Your task to perform on an android device: stop showing notifications on the lock screen Image 0: 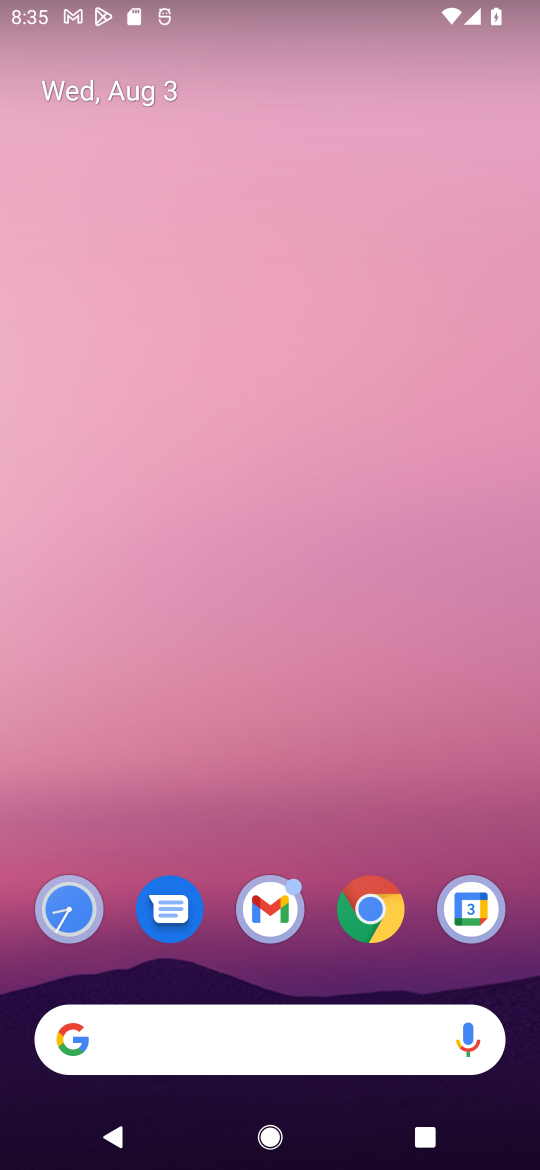
Step 0: press home button
Your task to perform on an android device: stop showing notifications on the lock screen Image 1: 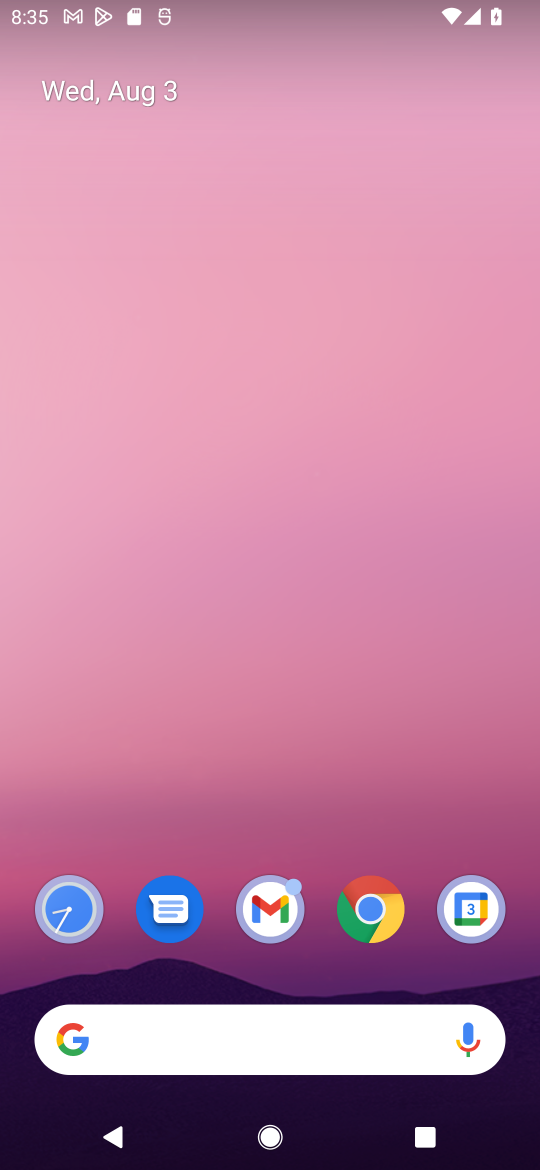
Step 1: drag from (447, 811) to (454, 280)
Your task to perform on an android device: stop showing notifications on the lock screen Image 2: 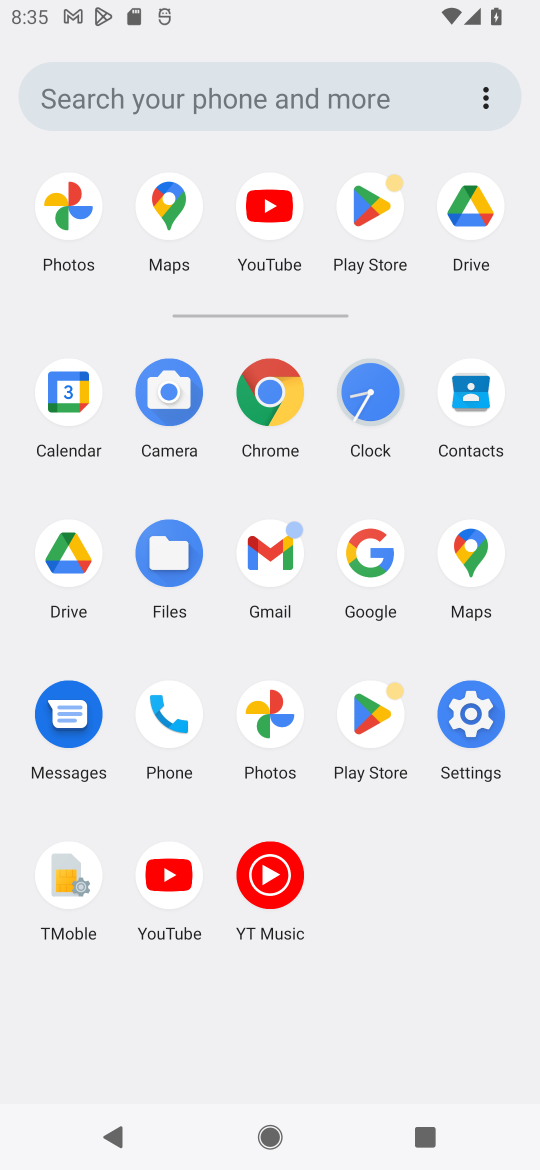
Step 2: click (471, 724)
Your task to perform on an android device: stop showing notifications on the lock screen Image 3: 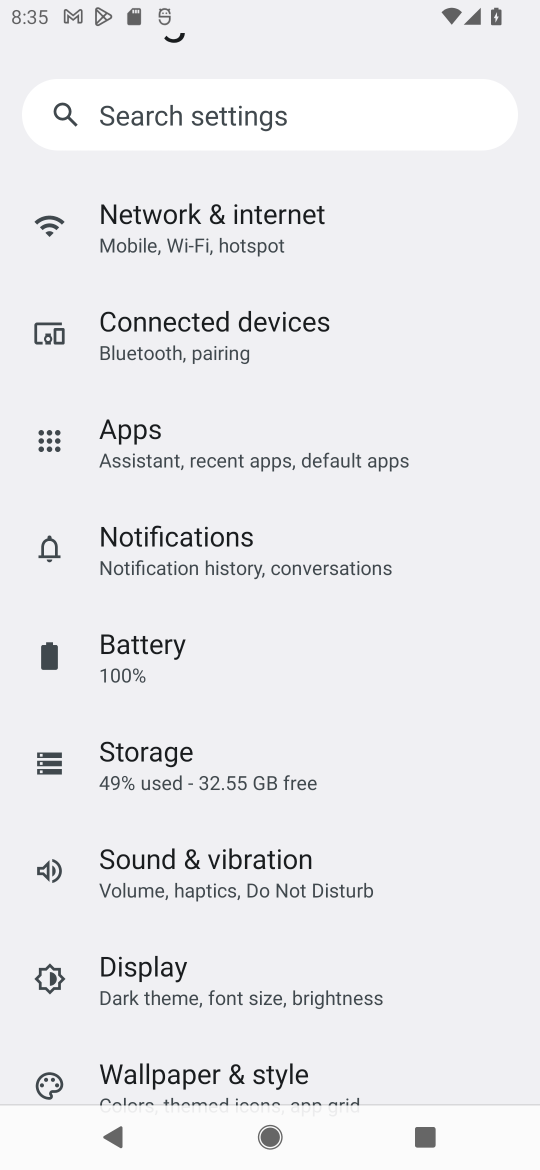
Step 3: drag from (430, 949) to (448, 775)
Your task to perform on an android device: stop showing notifications on the lock screen Image 4: 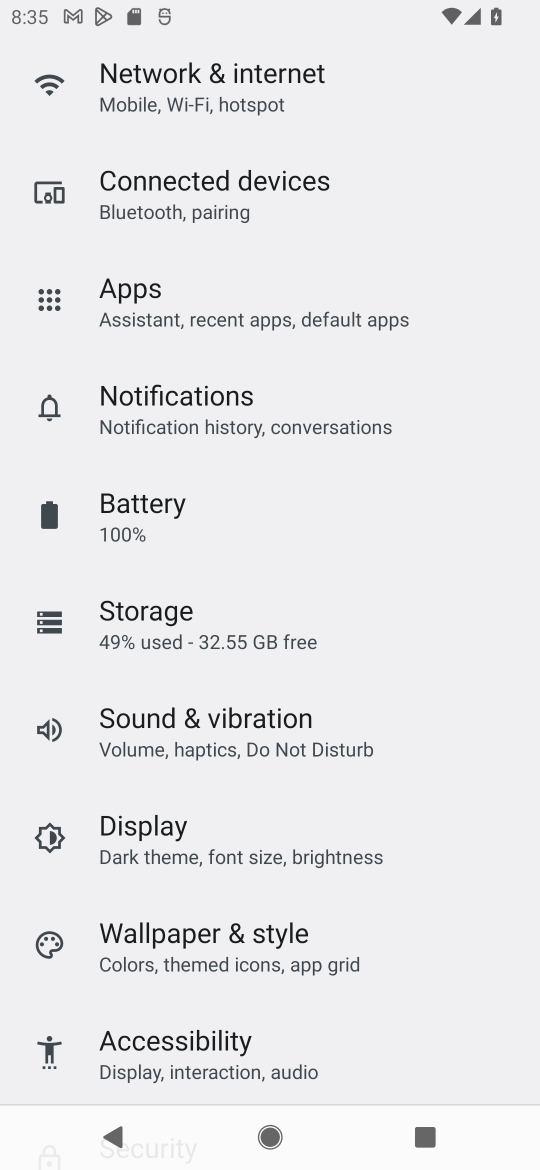
Step 4: drag from (436, 924) to (464, 722)
Your task to perform on an android device: stop showing notifications on the lock screen Image 5: 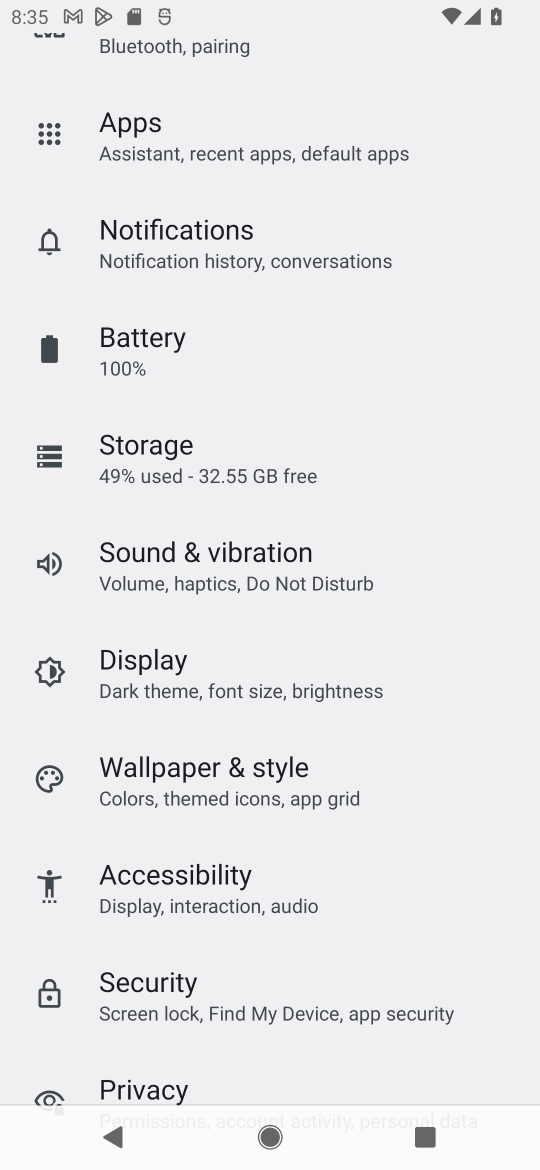
Step 5: drag from (447, 871) to (472, 640)
Your task to perform on an android device: stop showing notifications on the lock screen Image 6: 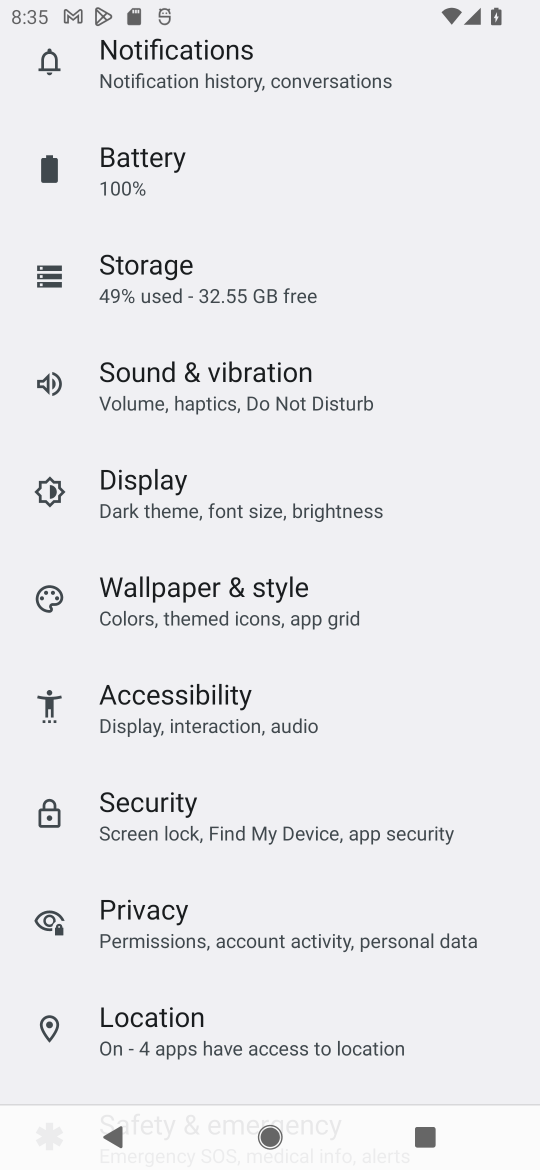
Step 6: drag from (418, 990) to (460, 798)
Your task to perform on an android device: stop showing notifications on the lock screen Image 7: 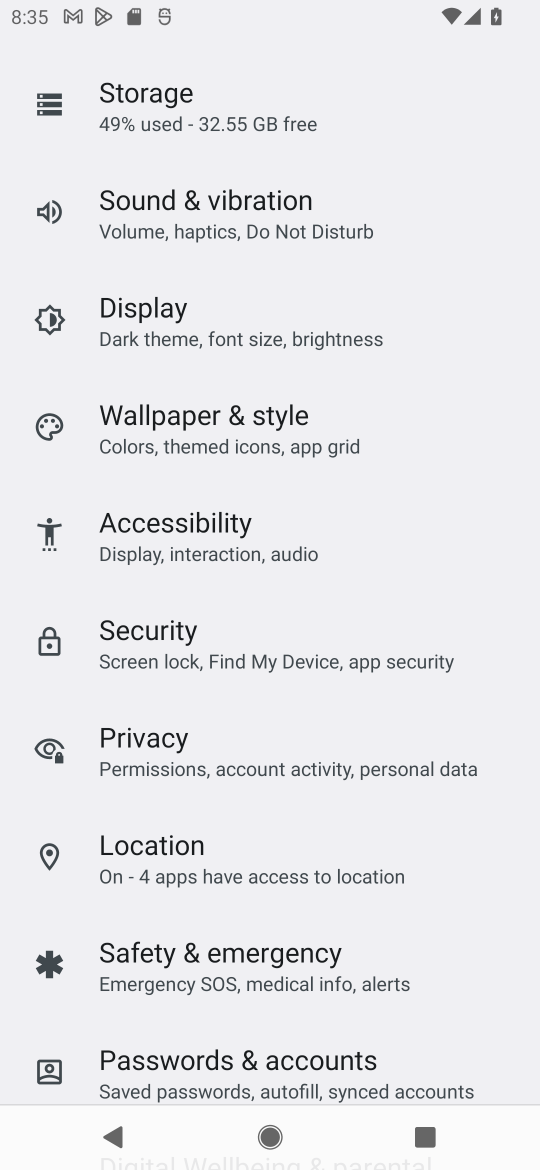
Step 7: drag from (478, 990) to (509, 785)
Your task to perform on an android device: stop showing notifications on the lock screen Image 8: 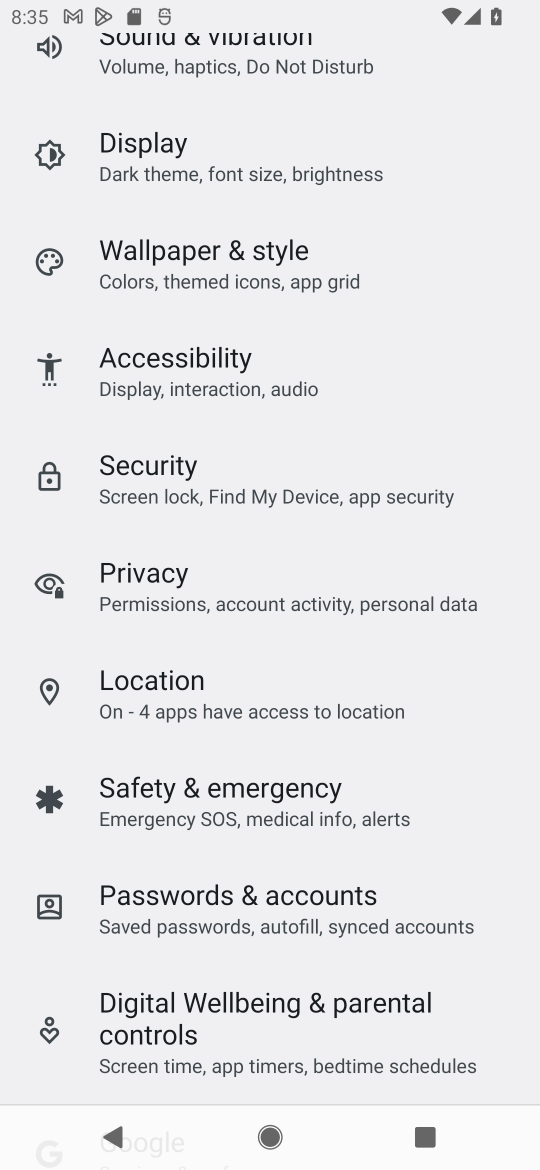
Step 8: drag from (472, 993) to (469, 752)
Your task to perform on an android device: stop showing notifications on the lock screen Image 9: 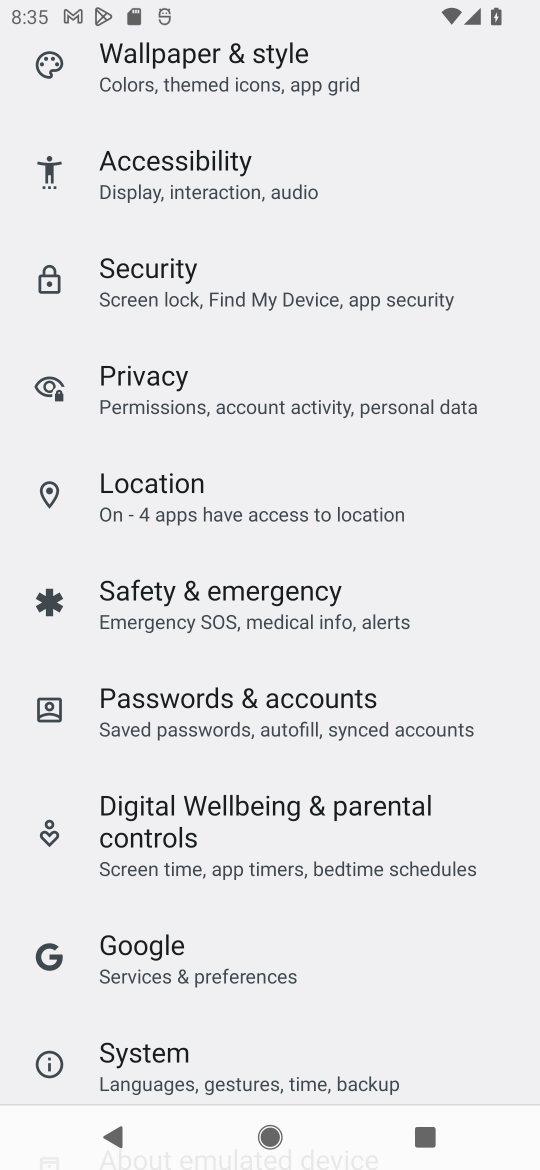
Step 9: drag from (437, 1013) to (468, 667)
Your task to perform on an android device: stop showing notifications on the lock screen Image 10: 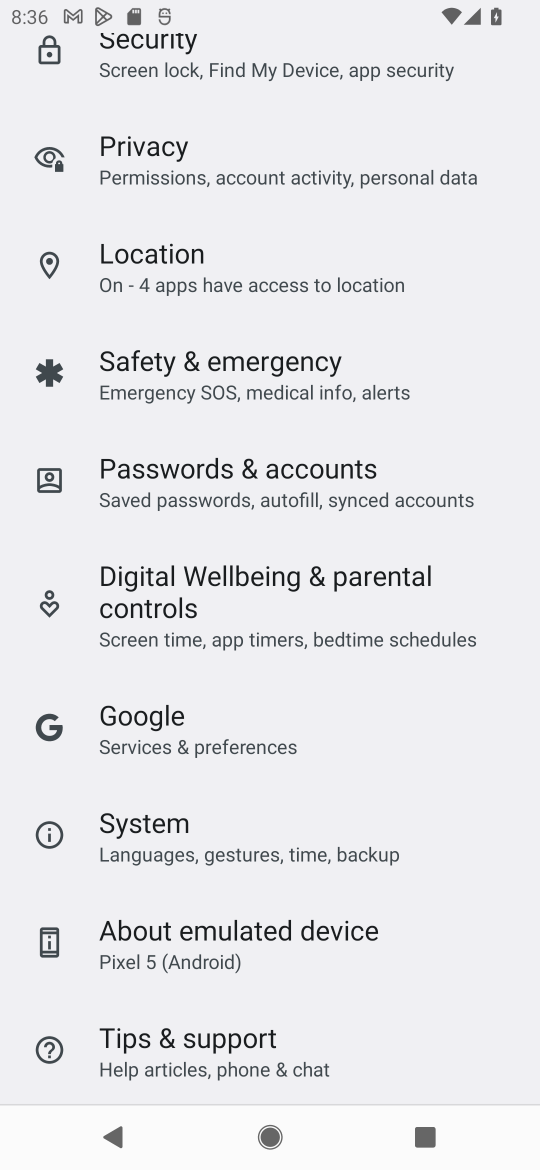
Step 10: drag from (498, 524) to (478, 763)
Your task to perform on an android device: stop showing notifications on the lock screen Image 11: 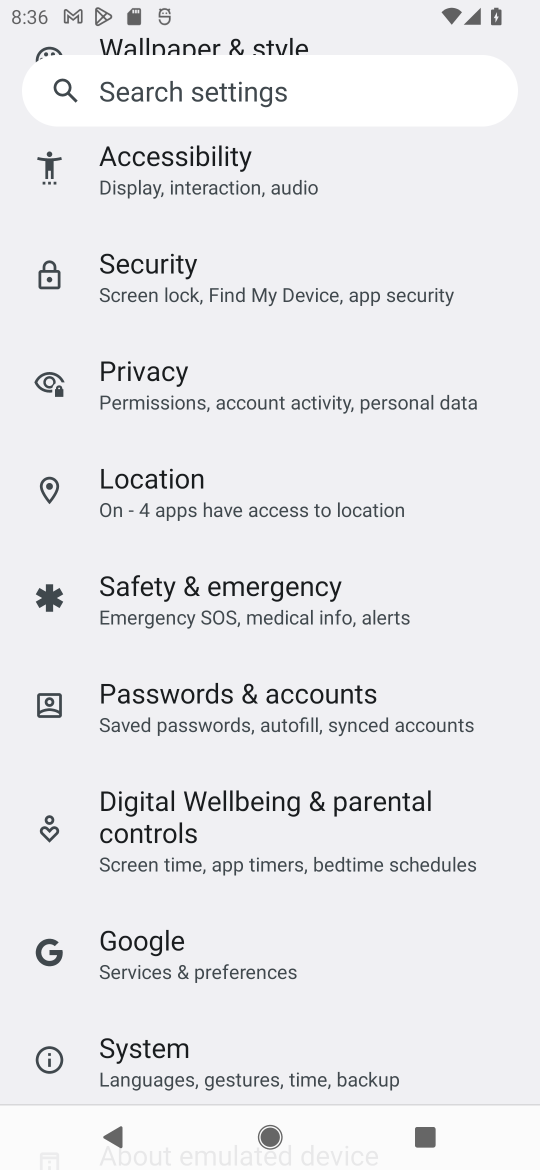
Step 11: drag from (478, 347) to (474, 692)
Your task to perform on an android device: stop showing notifications on the lock screen Image 12: 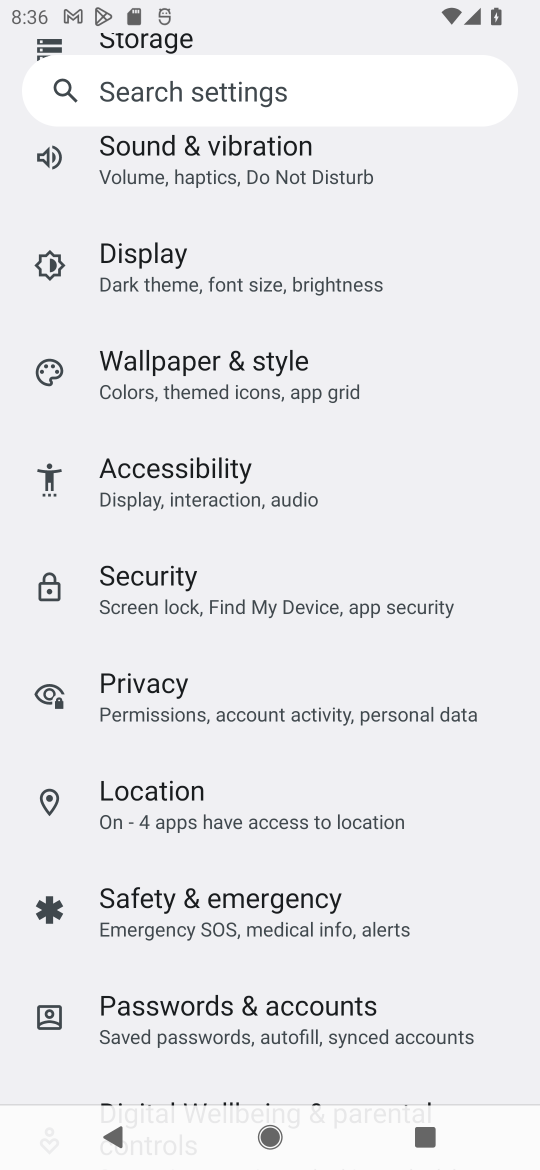
Step 12: drag from (487, 354) to (494, 566)
Your task to perform on an android device: stop showing notifications on the lock screen Image 13: 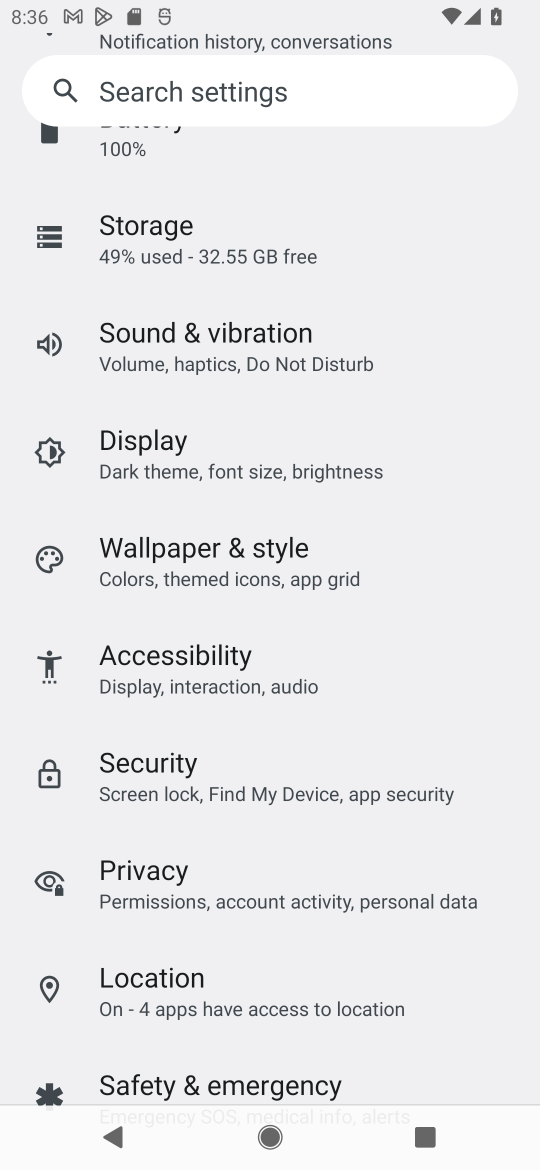
Step 13: drag from (471, 301) to (454, 591)
Your task to perform on an android device: stop showing notifications on the lock screen Image 14: 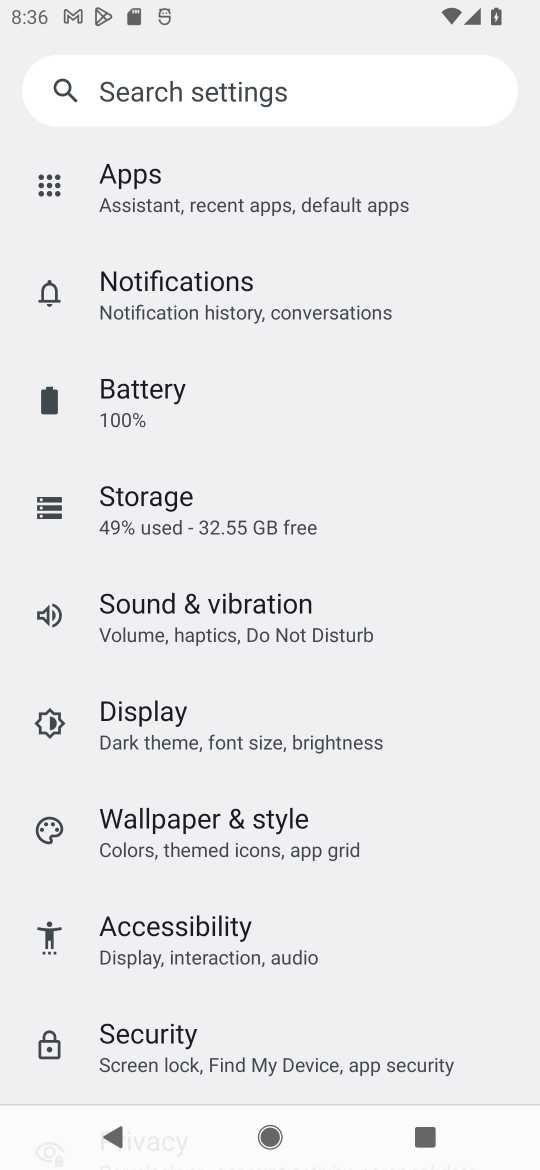
Step 14: drag from (458, 232) to (442, 556)
Your task to perform on an android device: stop showing notifications on the lock screen Image 15: 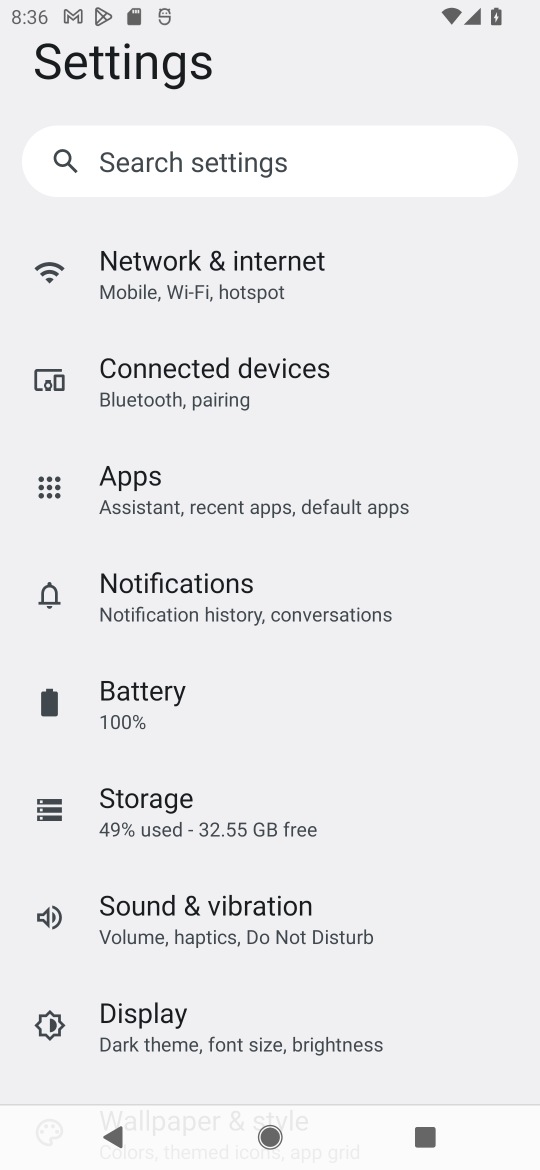
Step 15: click (370, 620)
Your task to perform on an android device: stop showing notifications on the lock screen Image 16: 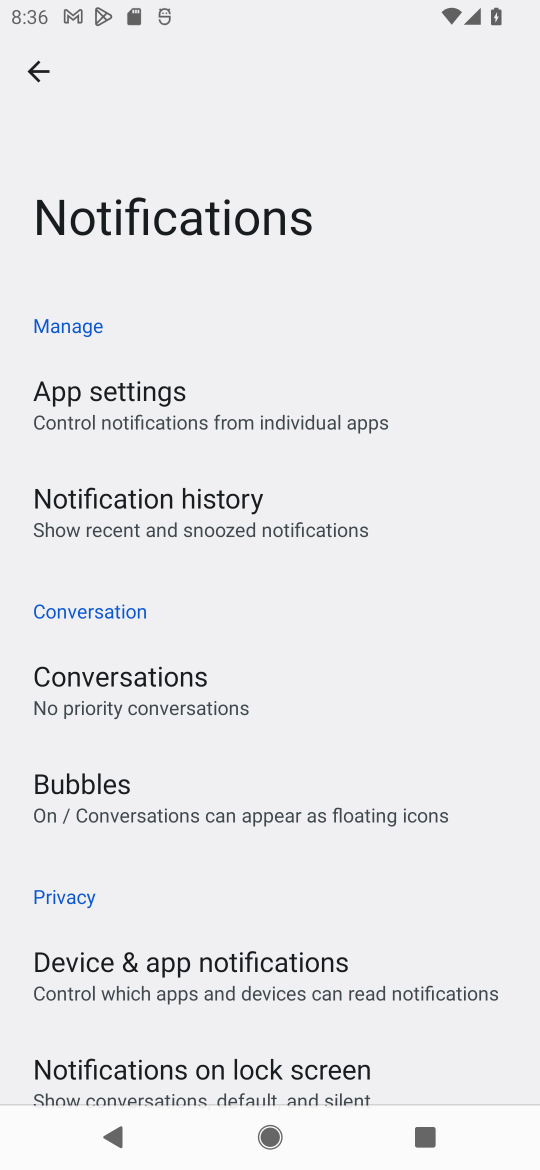
Step 16: drag from (401, 772) to (427, 637)
Your task to perform on an android device: stop showing notifications on the lock screen Image 17: 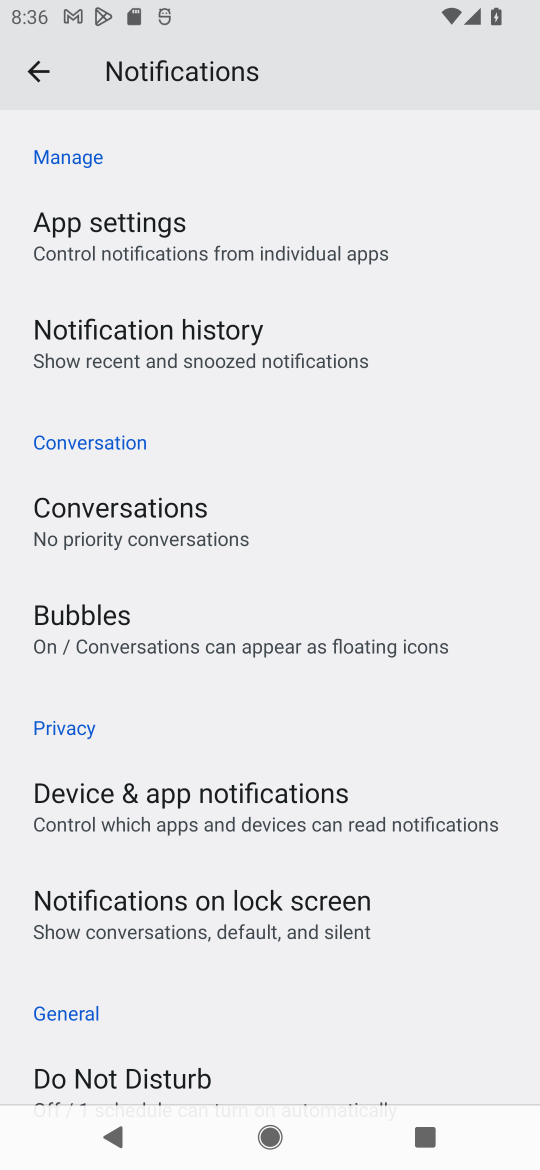
Step 17: drag from (435, 900) to (461, 724)
Your task to perform on an android device: stop showing notifications on the lock screen Image 18: 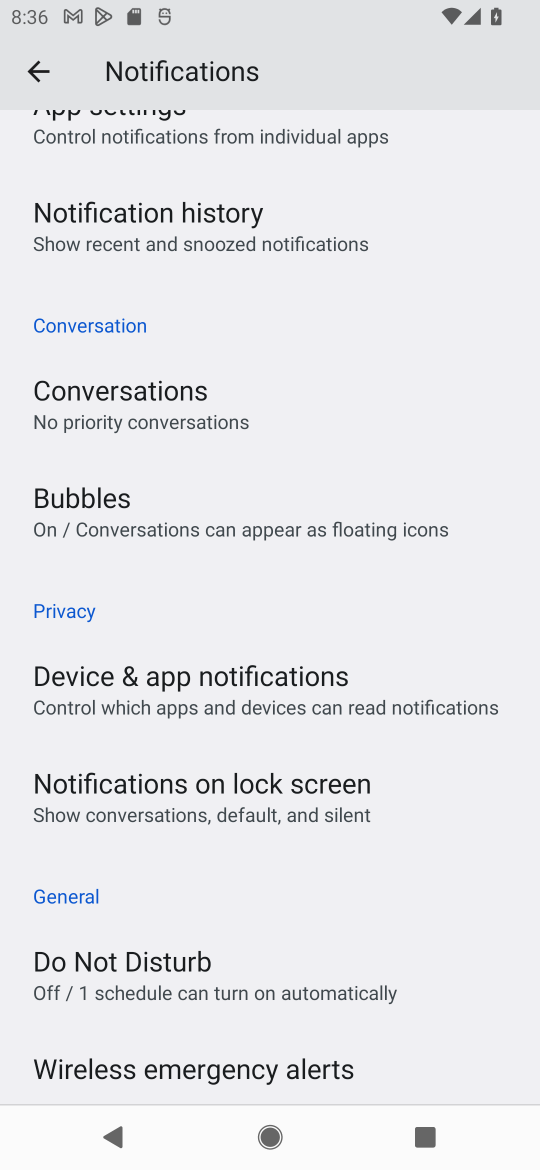
Step 18: click (410, 807)
Your task to perform on an android device: stop showing notifications on the lock screen Image 19: 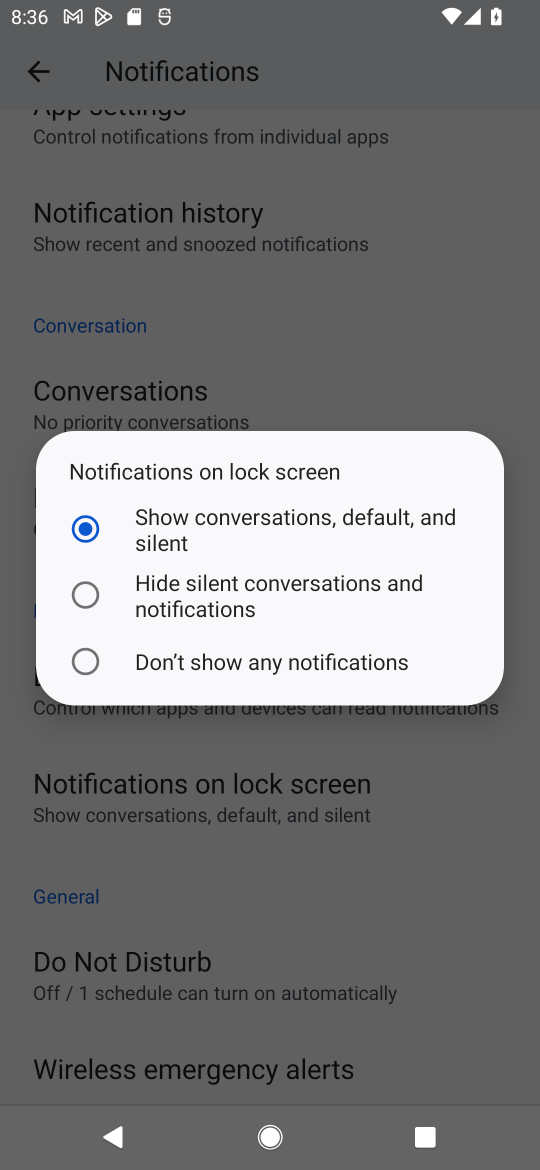
Step 19: click (399, 667)
Your task to perform on an android device: stop showing notifications on the lock screen Image 20: 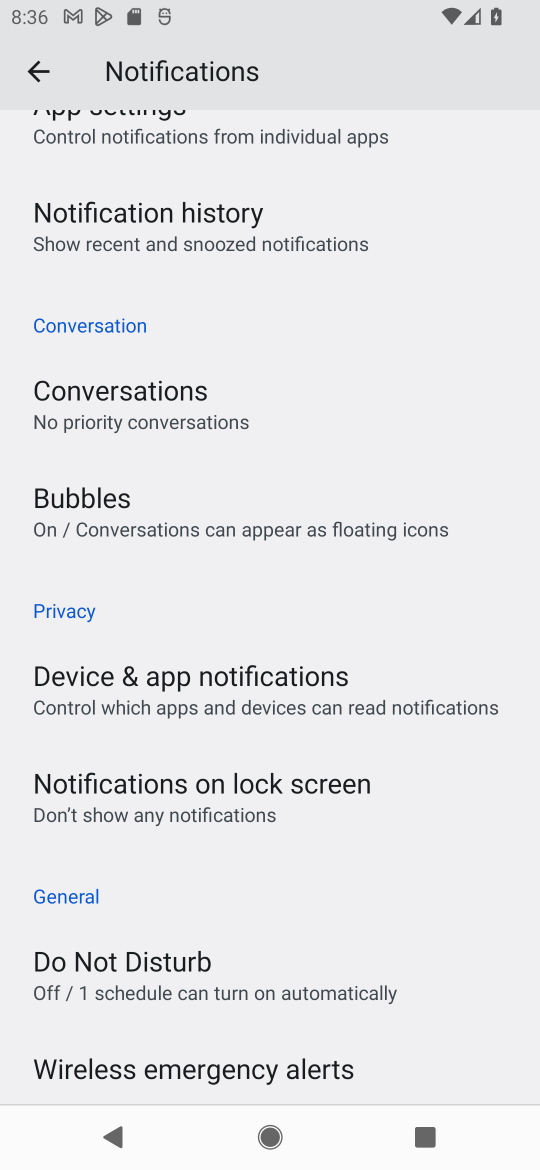
Step 20: task complete